Your task to perform on an android device: Open Yahoo.com Image 0: 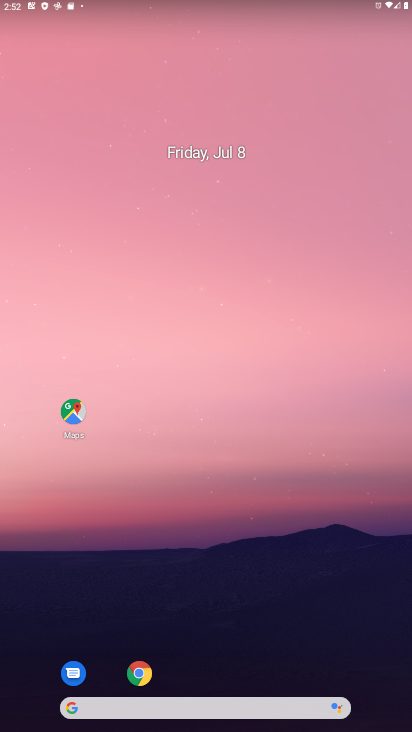
Step 0: click (148, 671)
Your task to perform on an android device: Open Yahoo.com Image 1: 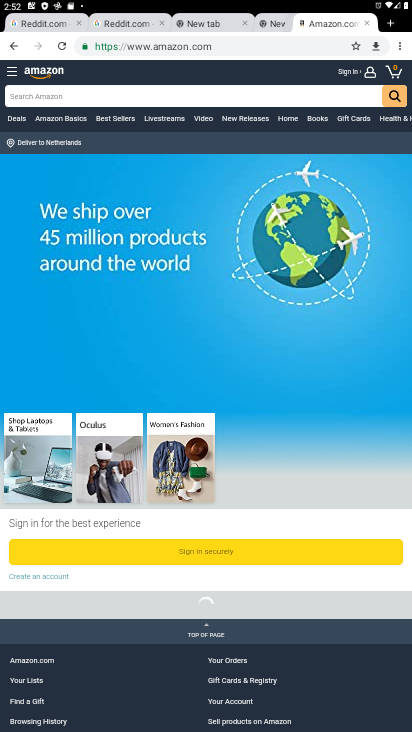
Step 1: click (188, 240)
Your task to perform on an android device: Open Yahoo.com Image 2: 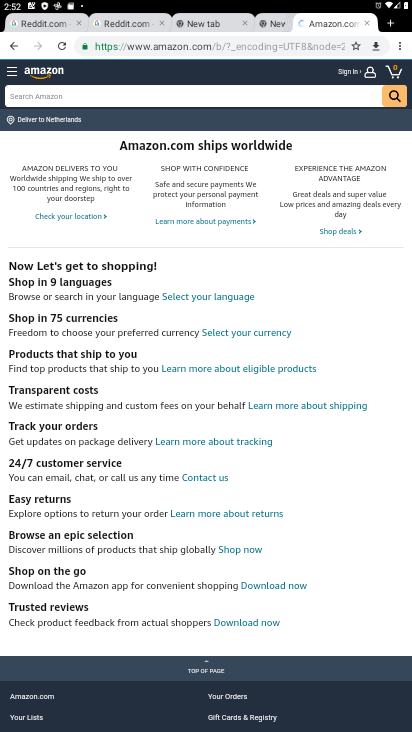
Step 2: click (264, 45)
Your task to perform on an android device: Open Yahoo.com Image 3: 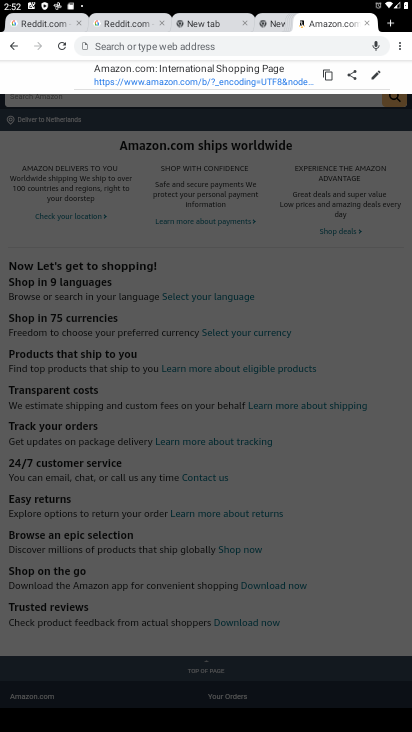
Step 3: click (309, 47)
Your task to perform on an android device: Open Yahoo.com Image 4: 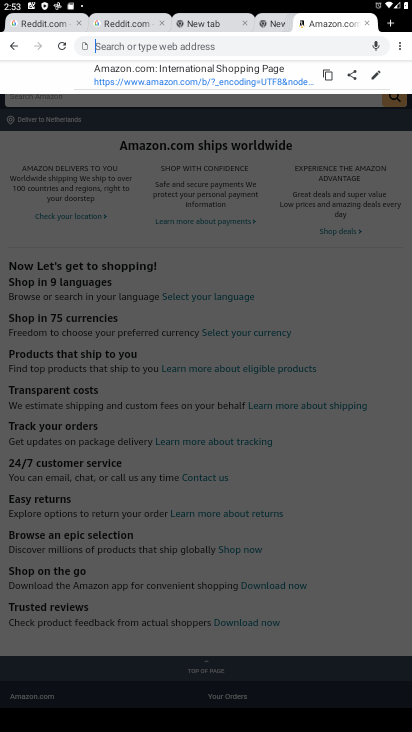
Step 4: type "Yahoo.com"
Your task to perform on an android device: Open Yahoo.com Image 5: 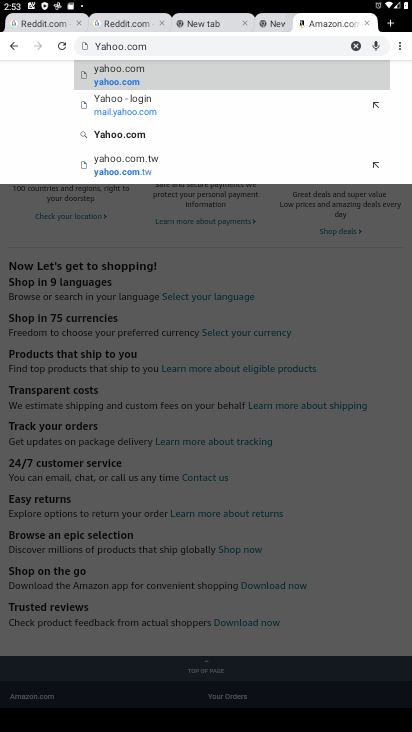
Step 5: click (119, 130)
Your task to perform on an android device: Open Yahoo.com Image 6: 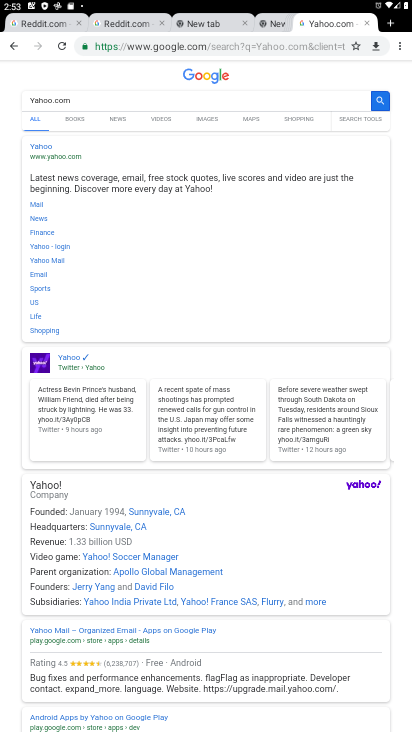
Step 6: task complete